Your task to perform on an android device: turn on the 12-hour format for clock Image 0: 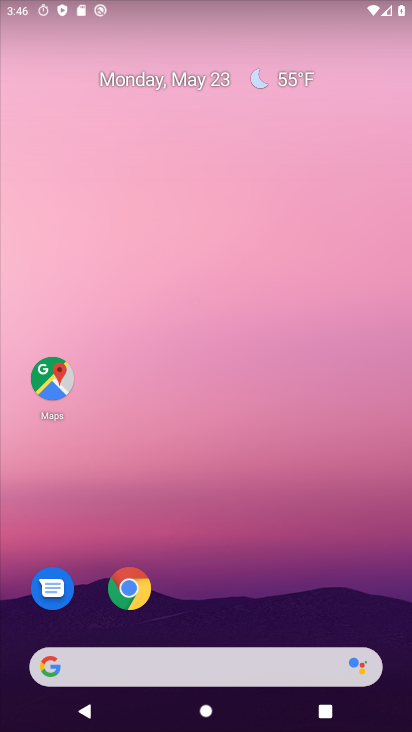
Step 0: drag from (200, 574) to (226, 120)
Your task to perform on an android device: turn on the 12-hour format for clock Image 1: 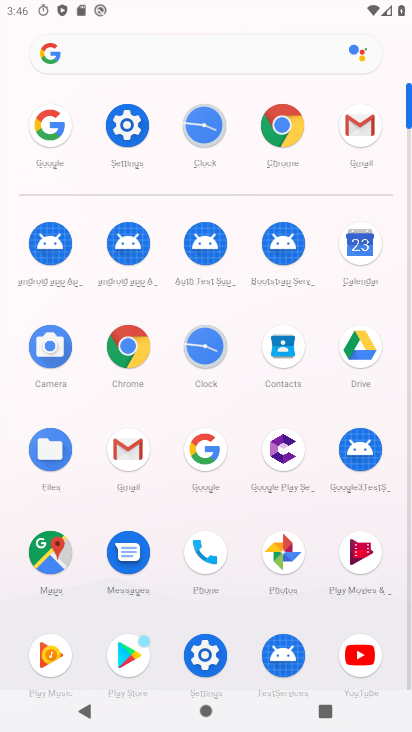
Step 1: click (200, 134)
Your task to perform on an android device: turn on the 12-hour format for clock Image 2: 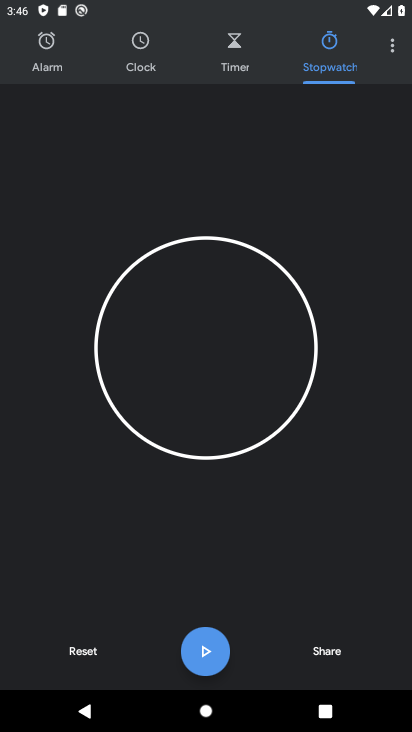
Step 2: click (386, 47)
Your task to perform on an android device: turn on the 12-hour format for clock Image 3: 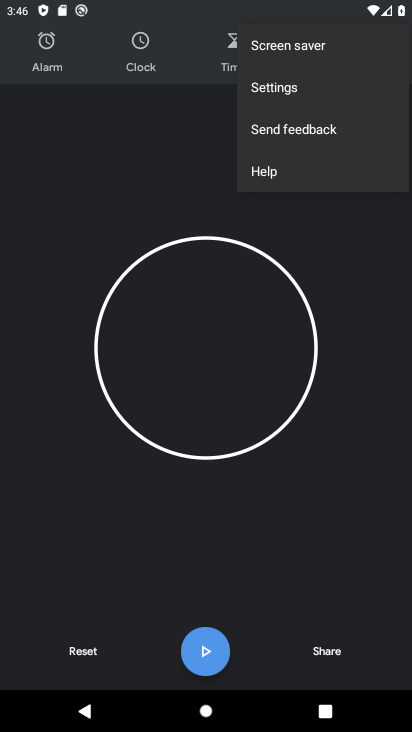
Step 3: click (289, 83)
Your task to perform on an android device: turn on the 12-hour format for clock Image 4: 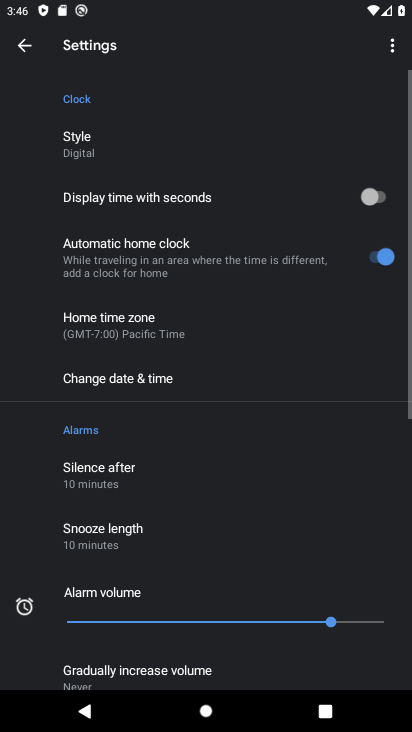
Step 4: click (103, 383)
Your task to perform on an android device: turn on the 12-hour format for clock Image 5: 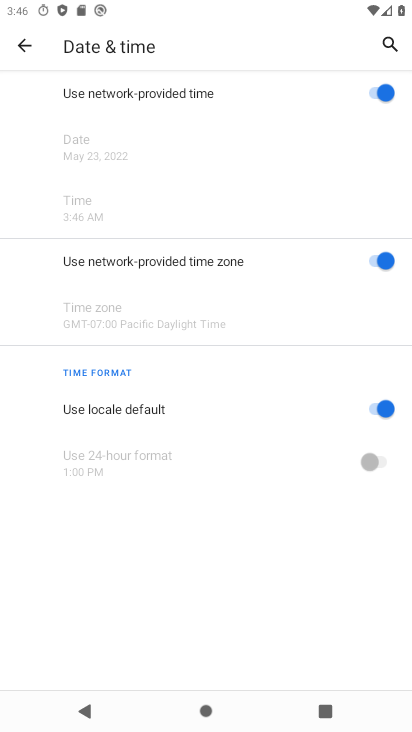
Step 5: task complete